Your task to perform on an android device: Open Youtube and go to the subscriptions tab Image 0: 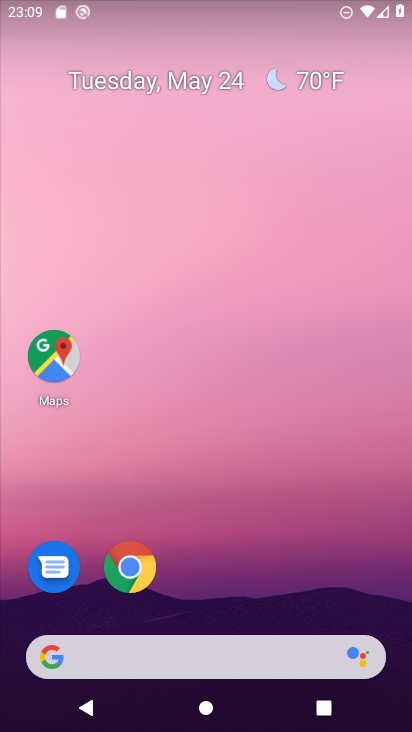
Step 0: drag from (282, 575) to (203, 70)
Your task to perform on an android device: Open Youtube and go to the subscriptions tab Image 1: 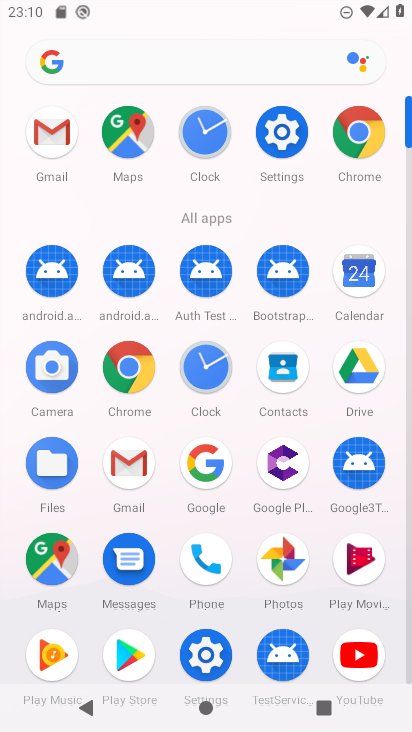
Step 1: click (133, 472)
Your task to perform on an android device: Open Youtube and go to the subscriptions tab Image 2: 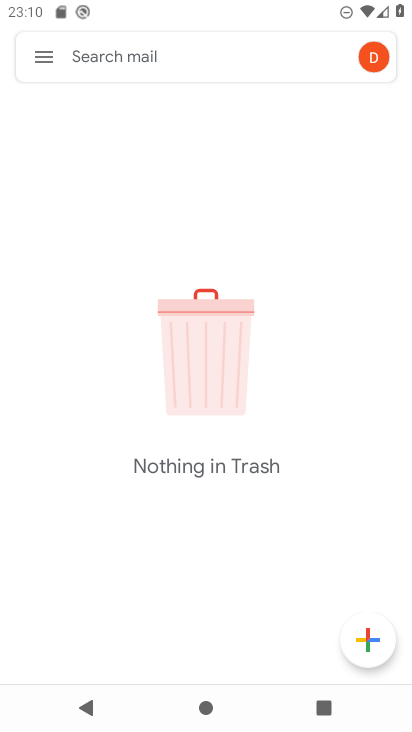
Step 2: press home button
Your task to perform on an android device: Open Youtube and go to the subscriptions tab Image 3: 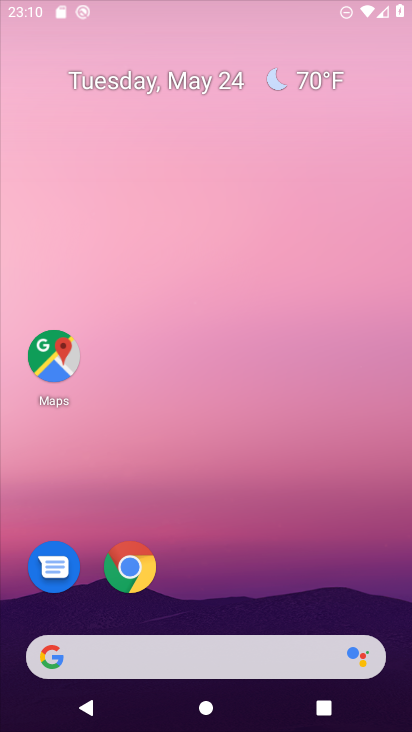
Step 3: drag from (281, 605) to (249, 70)
Your task to perform on an android device: Open Youtube and go to the subscriptions tab Image 4: 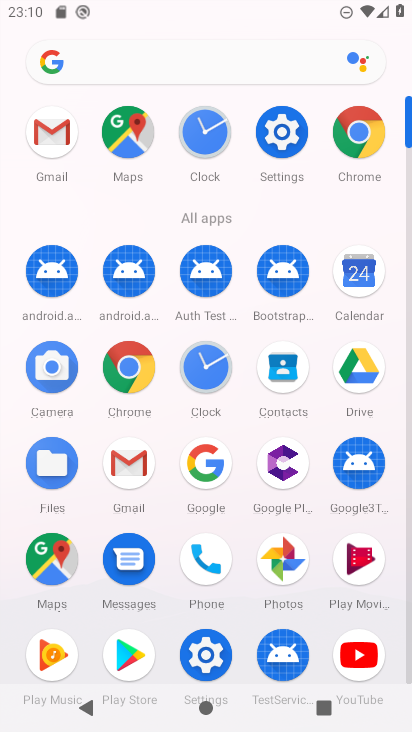
Step 4: click (367, 649)
Your task to perform on an android device: Open Youtube and go to the subscriptions tab Image 5: 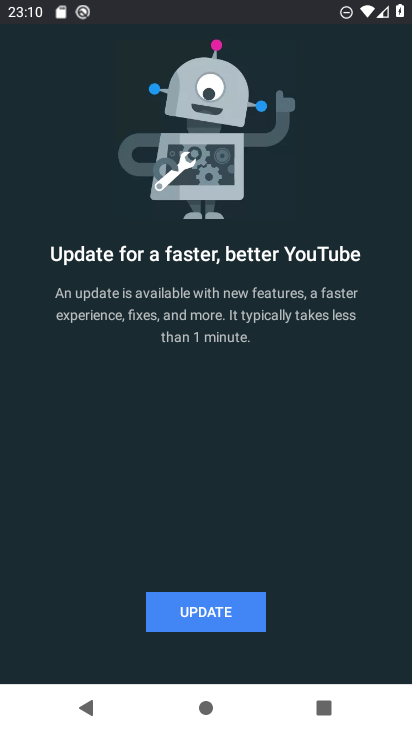
Step 5: click (217, 608)
Your task to perform on an android device: Open Youtube and go to the subscriptions tab Image 6: 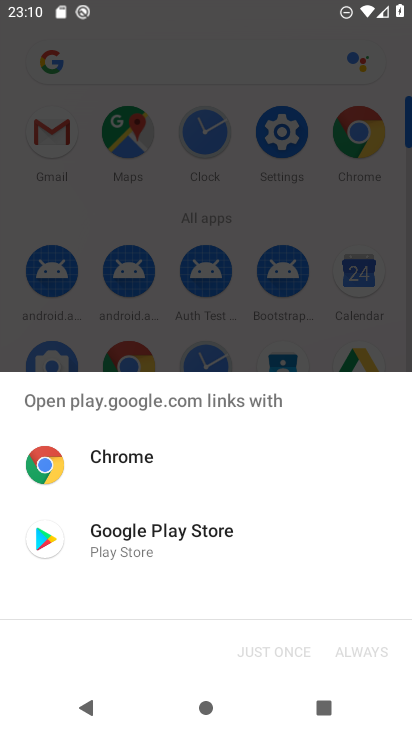
Step 6: click (156, 532)
Your task to perform on an android device: Open Youtube and go to the subscriptions tab Image 7: 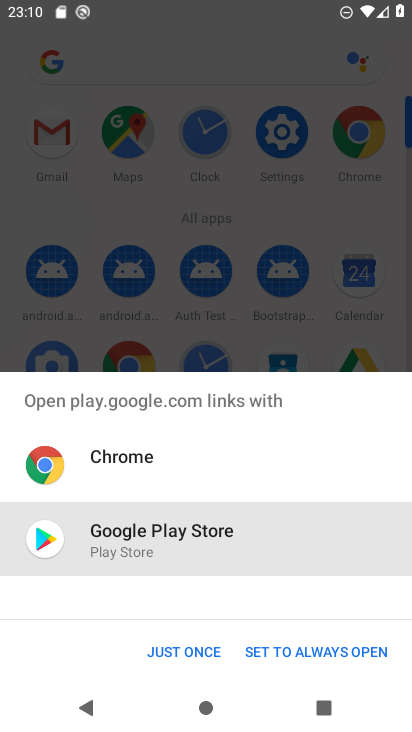
Step 7: click (192, 631)
Your task to perform on an android device: Open Youtube and go to the subscriptions tab Image 8: 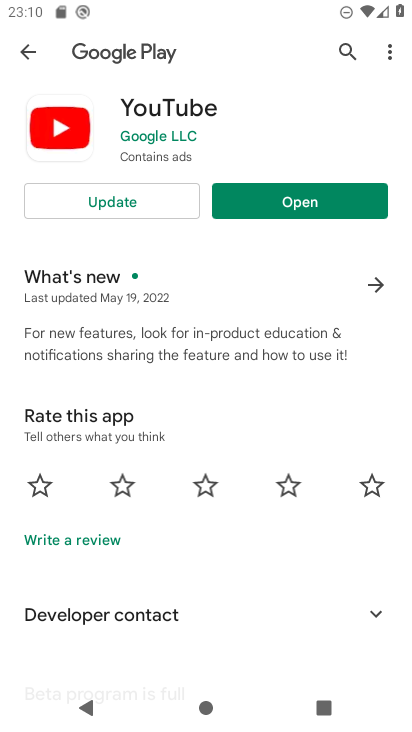
Step 8: click (157, 205)
Your task to perform on an android device: Open Youtube and go to the subscriptions tab Image 9: 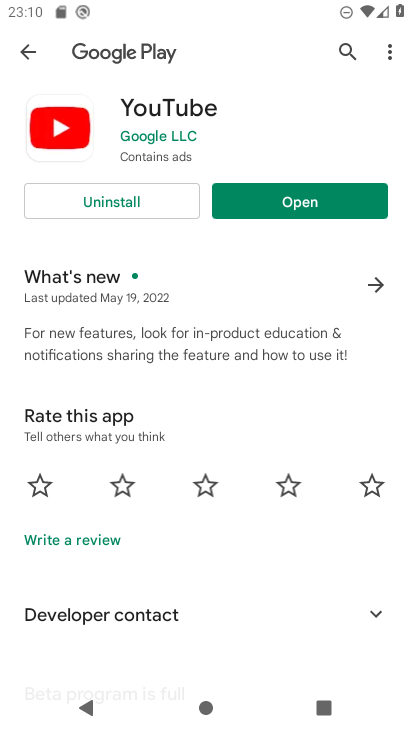
Step 9: click (346, 188)
Your task to perform on an android device: Open Youtube and go to the subscriptions tab Image 10: 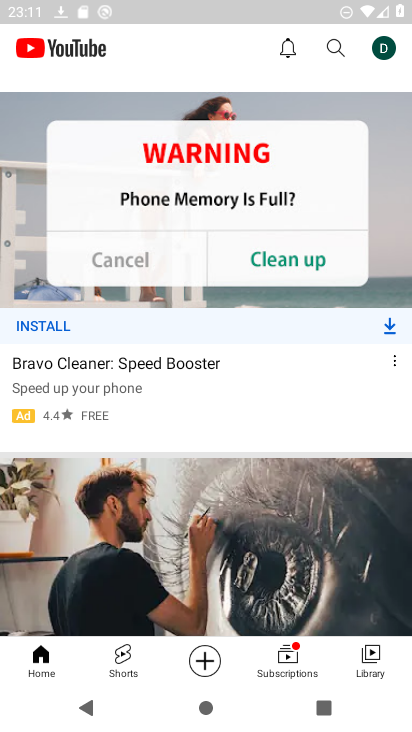
Step 10: click (287, 665)
Your task to perform on an android device: Open Youtube and go to the subscriptions tab Image 11: 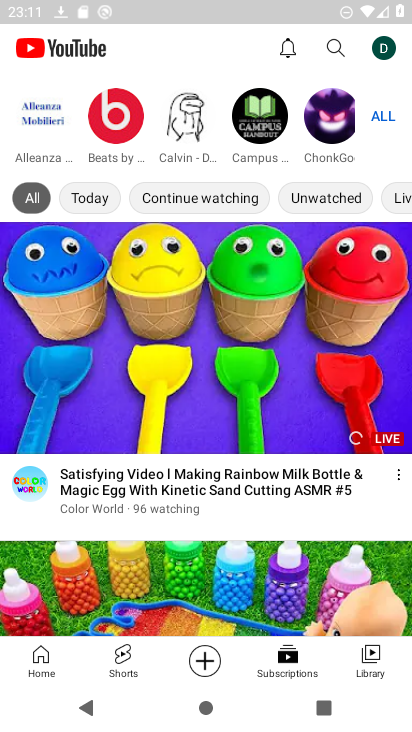
Step 11: task complete